Your task to perform on an android device: make emails show in primary in the gmail app Image 0: 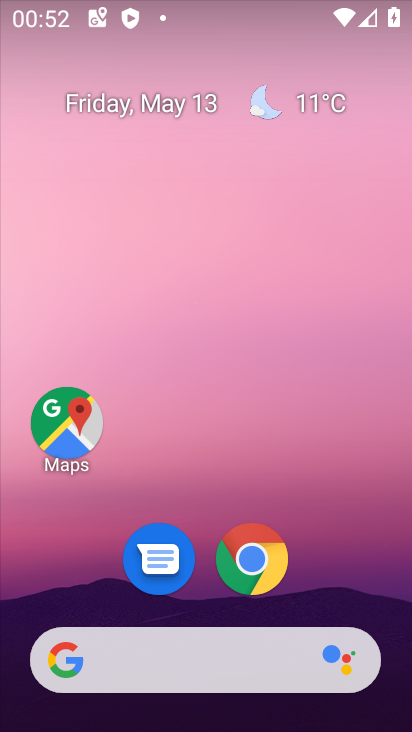
Step 0: drag from (213, 450) to (237, 89)
Your task to perform on an android device: make emails show in primary in the gmail app Image 1: 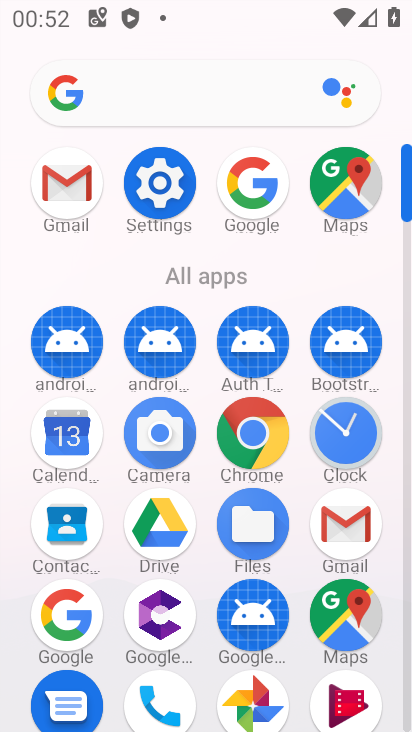
Step 1: click (73, 163)
Your task to perform on an android device: make emails show in primary in the gmail app Image 2: 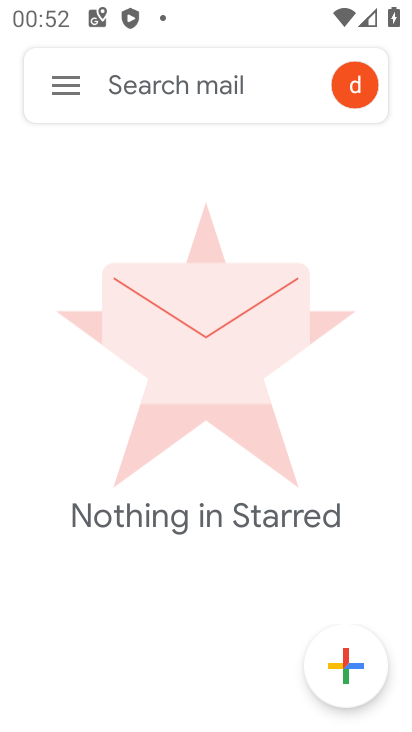
Step 2: click (80, 89)
Your task to perform on an android device: make emails show in primary in the gmail app Image 3: 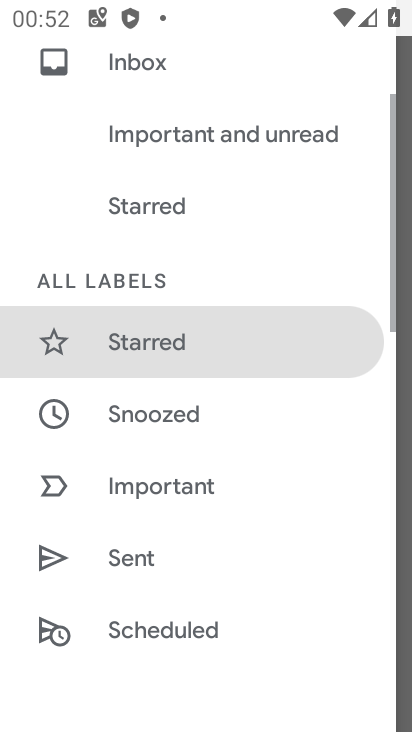
Step 3: drag from (226, 586) to (265, 138)
Your task to perform on an android device: make emails show in primary in the gmail app Image 4: 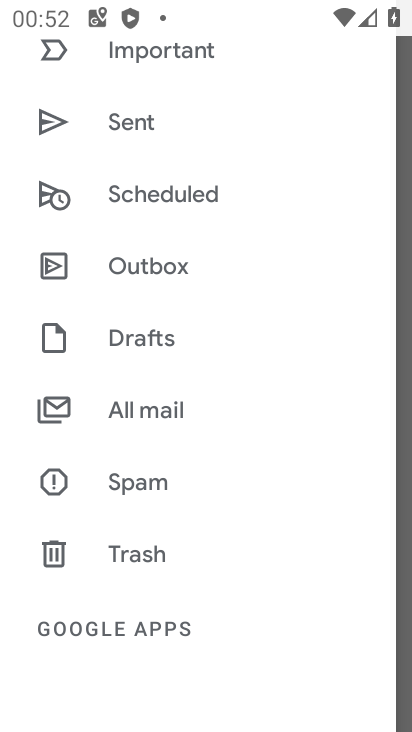
Step 4: drag from (164, 603) to (169, 288)
Your task to perform on an android device: make emails show in primary in the gmail app Image 5: 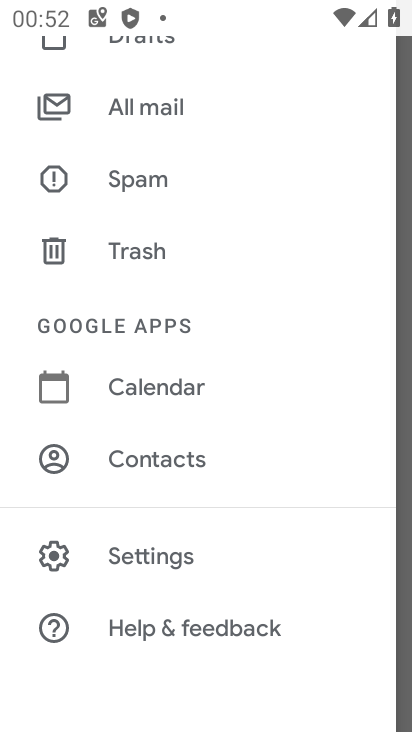
Step 5: click (161, 538)
Your task to perform on an android device: make emails show in primary in the gmail app Image 6: 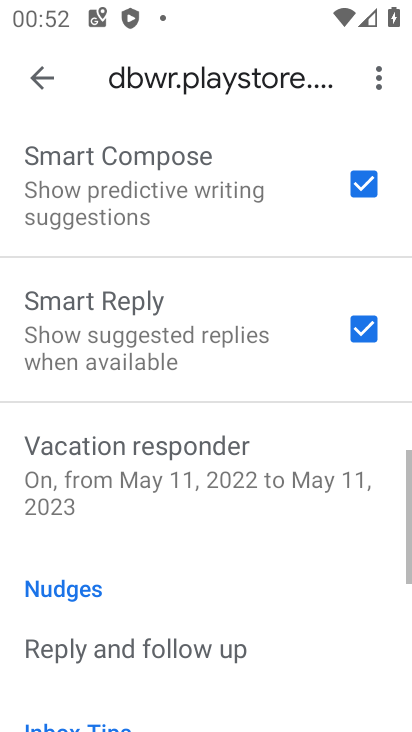
Step 6: drag from (270, 554) to (232, 195)
Your task to perform on an android device: make emails show in primary in the gmail app Image 7: 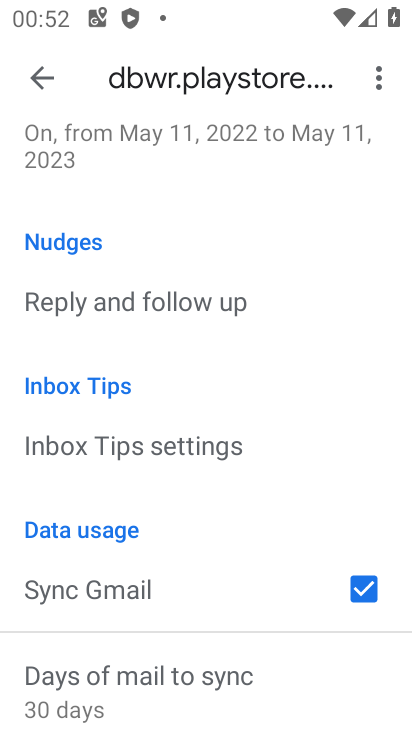
Step 7: drag from (215, 590) to (276, 730)
Your task to perform on an android device: make emails show in primary in the gmail app Image 8: 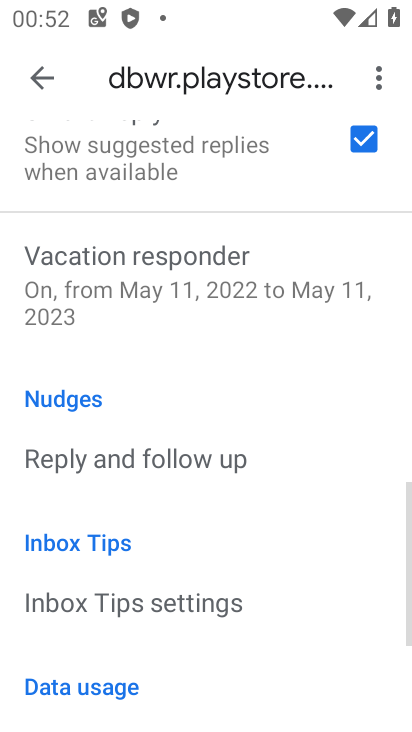
Step 8: drag from (124, 230) to (269, 709)
Your task to perform on an android device: make emails show in primary in the gmail app Image 9: 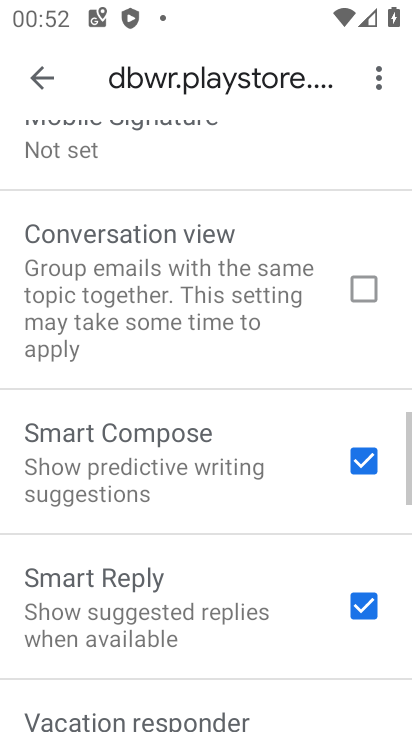
Step 9: drag from (175, 208) to (268, 648)
Your task to perform on an android device: make emails show in primary in the gmail app Image 10: 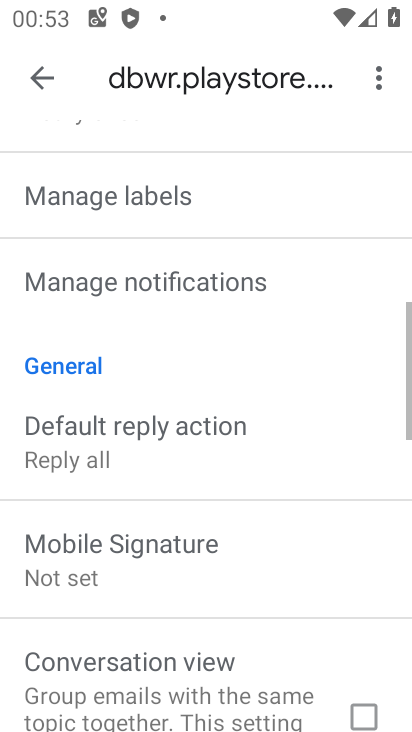
Step 10: drag from (172, 138) to (219, 468)
Your task to perform on an android device: make emails show in primary in the gmail app Image 11: 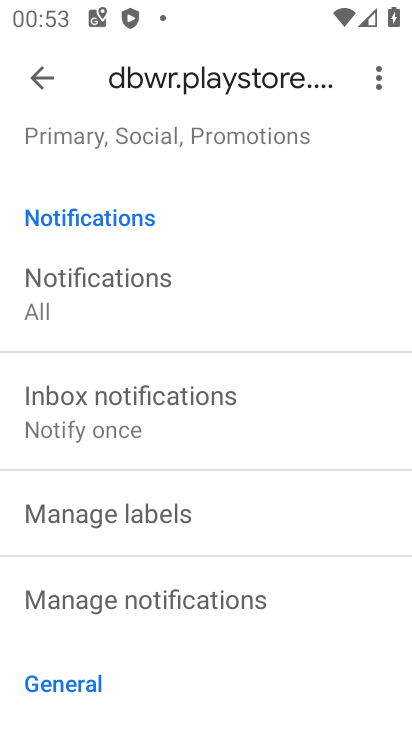
Step 11: drag from (89, 202) to (166, 498)
Your task to perform on an android device: make emails show in primary in the gmail app Image 12: 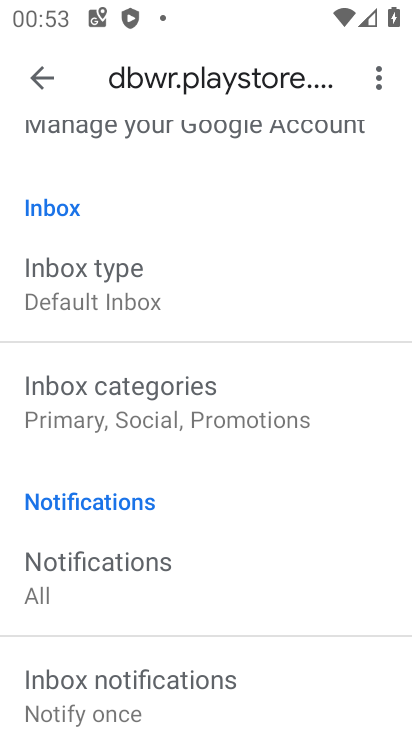
Step 12: click (106, 369)
Your task to perform on an android device: make emails show in primary in the gmail app Image 13: 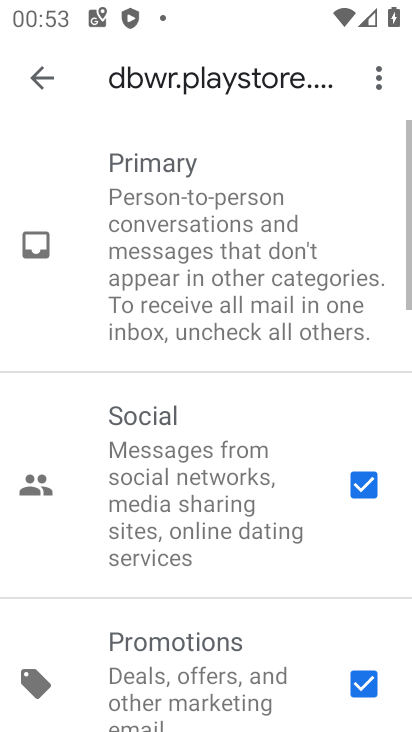
Step 13: click (354, 489)
Your task to perform on an android device: make emails show in primary in the gmail app Image 14: 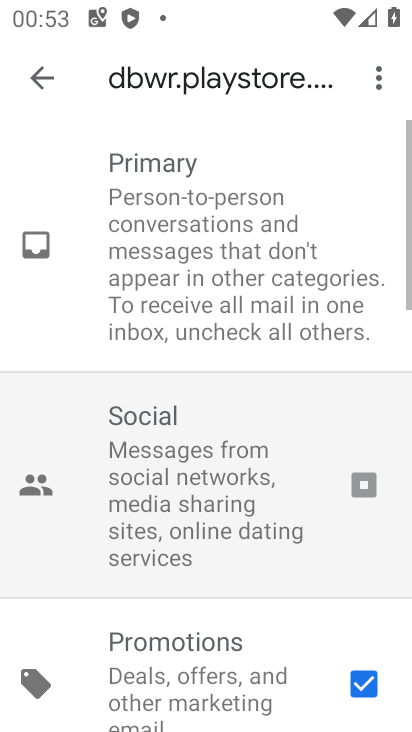
Step 14: click (355, 672)
Your task to perform on an android device: make emails show in primary in the gmail app Image 15: 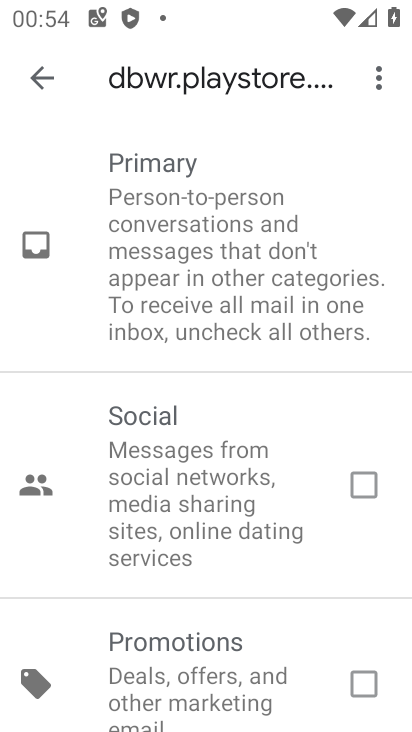
Step 15: task complete